Your task to perform on an android device: See recent photos Image 0: 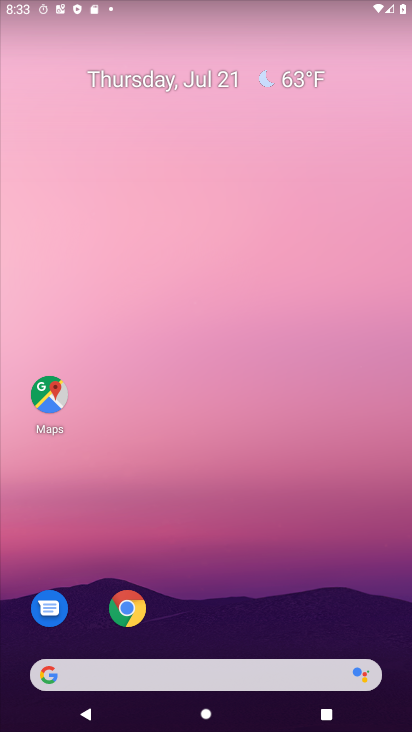
Step 0: press home button
Your task to perform on an android device: See recent photos Image 1: 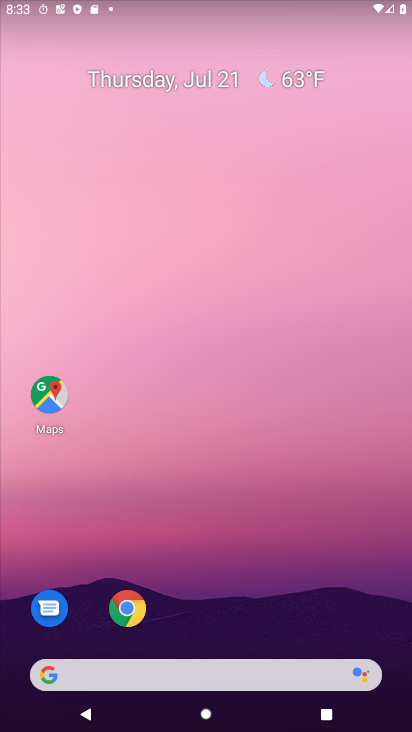
Step 1: drag from (243, 610) to (207, 45)
Your task to perform on an android device: See recent photos Image 2: 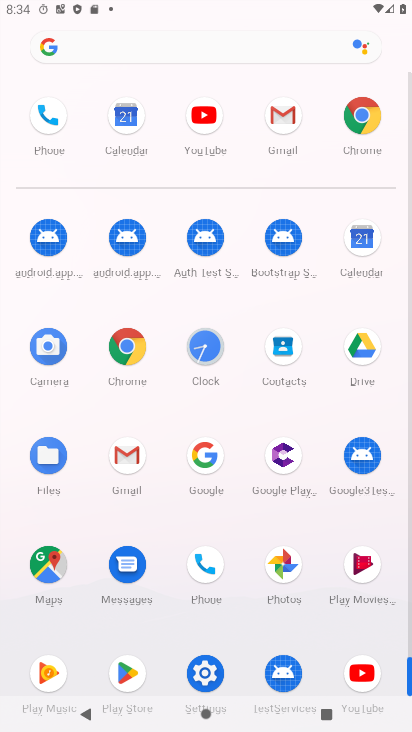
Step 2: click (273, 551)
Your task to perform on an android device: See recent photos Image 3: 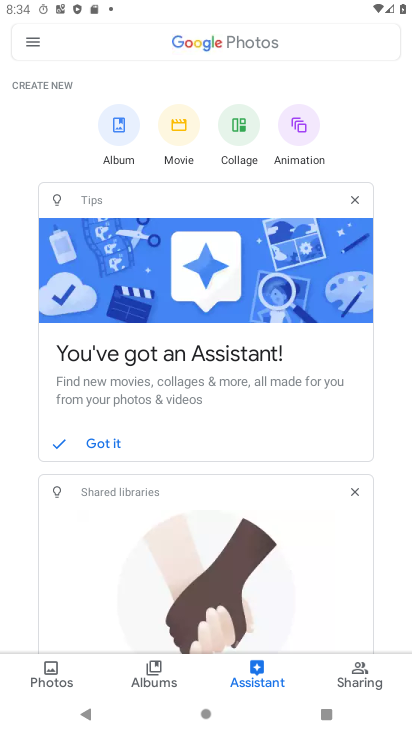
Step 3: click (29, 663)
Your task to perform on an android device: See recent photos Image 4: 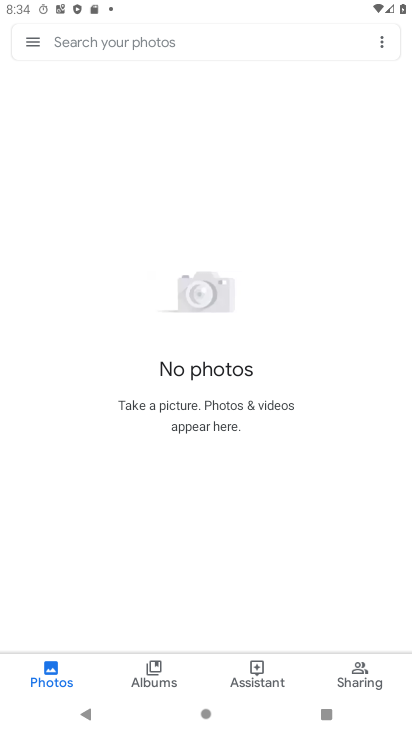
Step 4: task complete